Your task to perform on an android device: turn pop-ups off in chrome Image 0: 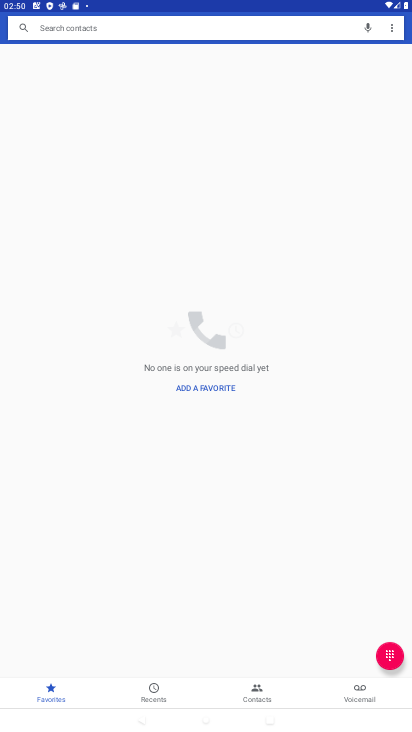
Step 0: press home button
Your task to perform on an android device: turn pop-ups off in chrome Image 1: 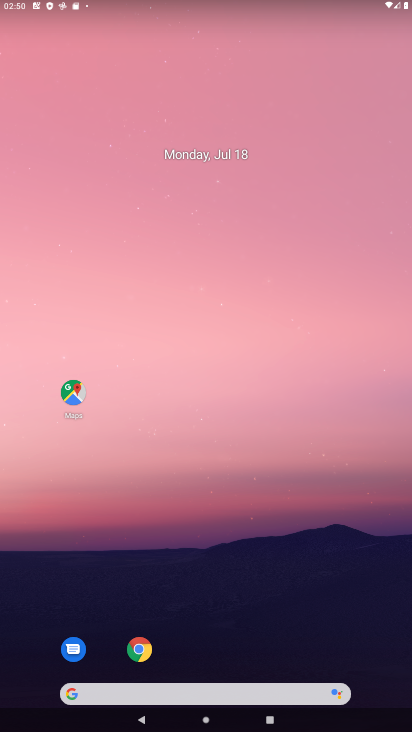
Step 1: click (140, 651)
Your task to perform on an android device: turn pop-ups off in chrome Image 2: 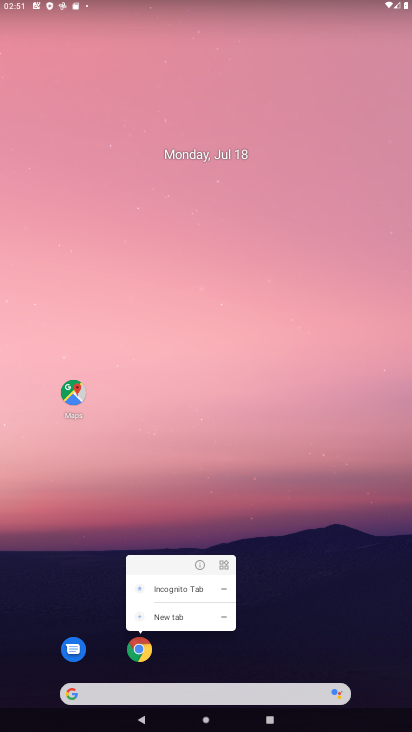
Step 2: click (140, 651)
Your task to perform on an android device: turn pop-ups off in chrome Image 3: 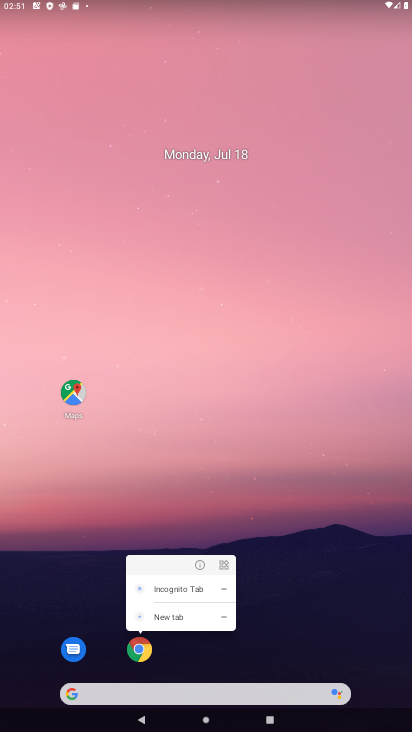
Step 3: click (140, 651)
Your task to perform on an android device: turn pop-ups off in chrome Image 4: 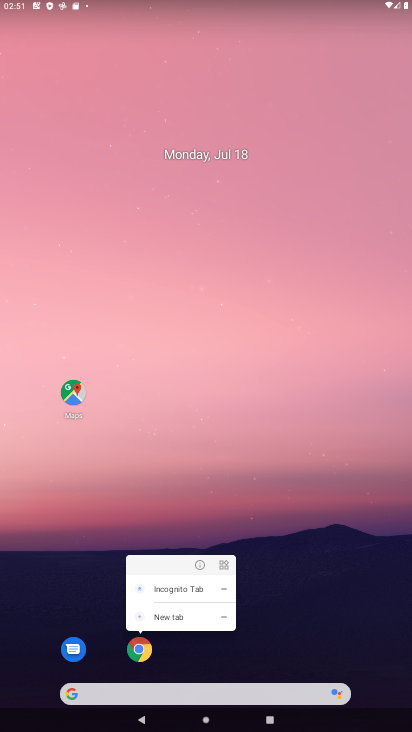
Step 4: click (140, 651)
Your task to perform on an android device: turn pop-ups off in chrome Image 5: 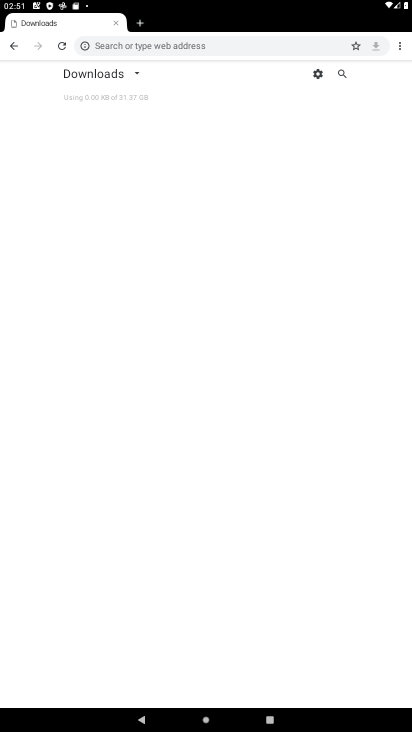
Step 5: click (400, 42)
Your task to perform on an android device: turn pop-ups off in chrome Image 6: 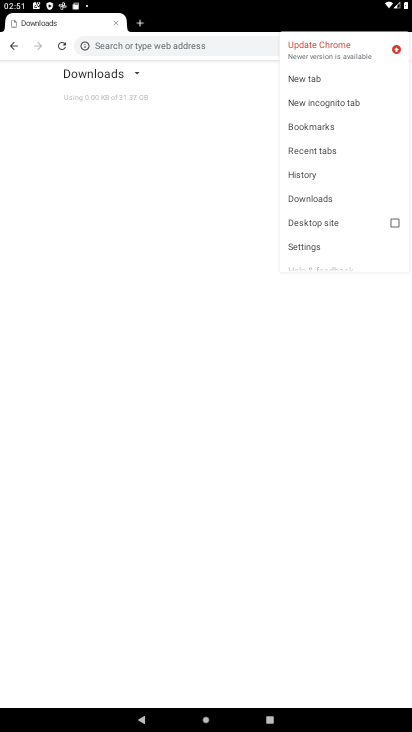
Step 6: click (316, 253)
Your task to perform on an android device: turn pop-ups off in chrome Image 7: 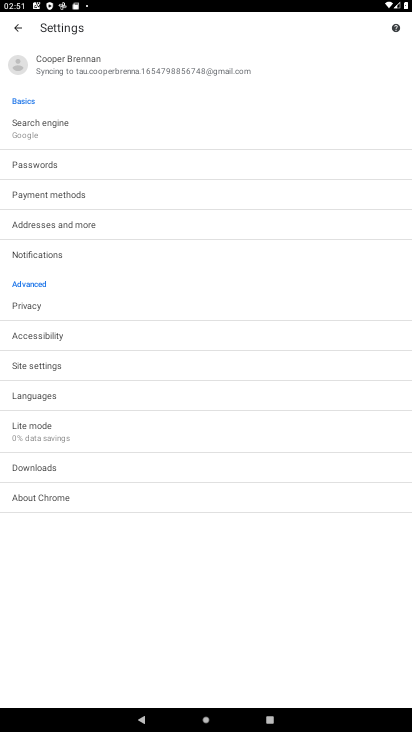
Step 7: click (44, 364)
Your task to perform on an android device: turn pop-ups off in chrome Image 8: 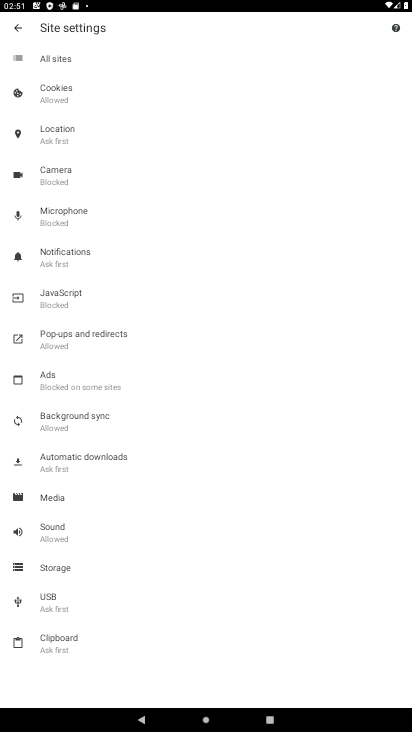
Step 8: click (69, 336)
Your task to perform on an android device: turn pop-ups off in chrome Image 9: 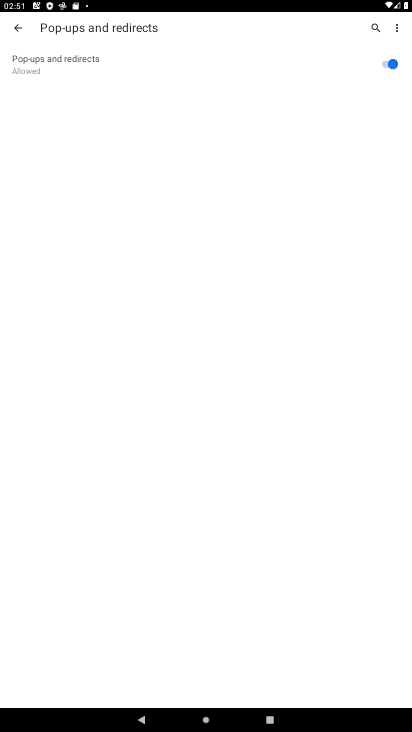
Step 9: click (390, 64)
Your task to perform on an android device: turn pop-ups off in chrome Image 10: 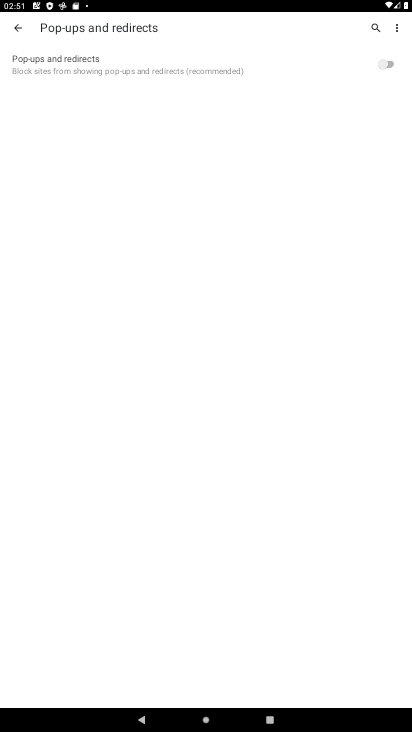
Step 10: task complete